Your task to perform on an android device: Open eBay Image 0: 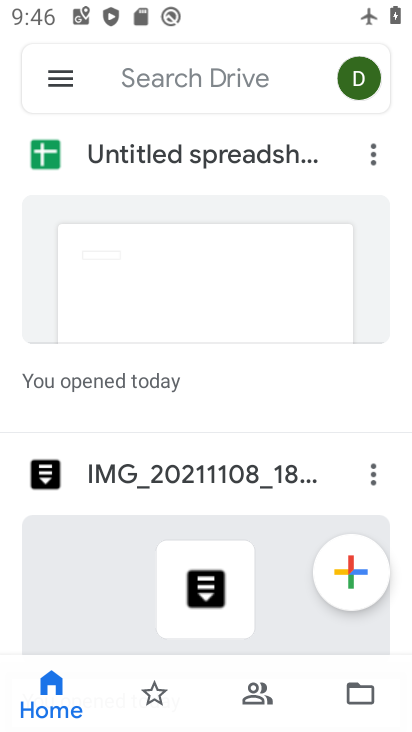
Step 0: press home button
Your task to perform on an android device: Open eBay Image 1: 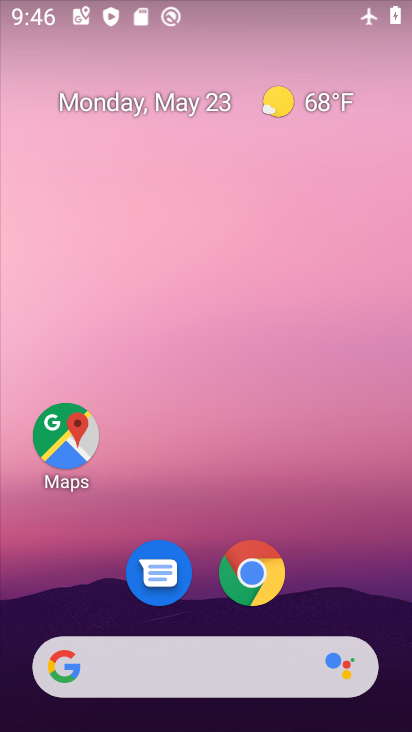
Step 1: drag from (217, 673) to (277, 140)
Your task to perform on an android device: Open eBay Image 2: 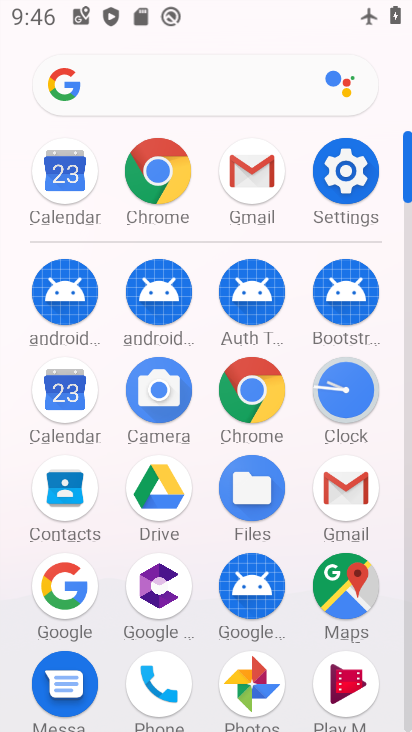
Step 2: click (167, 191)
Your task to perform on an android device: Open eBay Image 3: 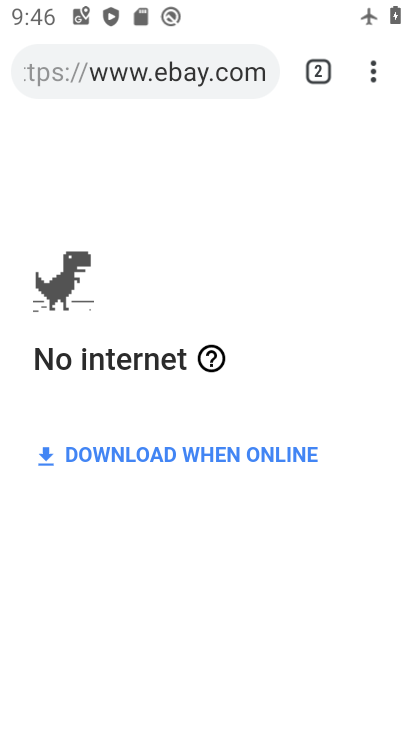
Step 3: task complete